Your task to perform on an android device: open app "Facebook" (install if not already installed) and enter user name: "resultants@gmail.com" and password: "earned" Image 0: 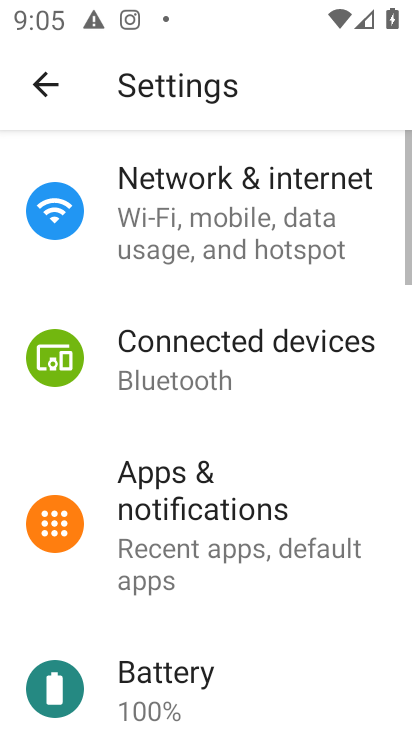
Step 0: press home button
Your task to perform on an android device: open app "Facebook" (install if not already installed) and enter user name: "resultants@gmail.com" and password: "earned" Image 1: 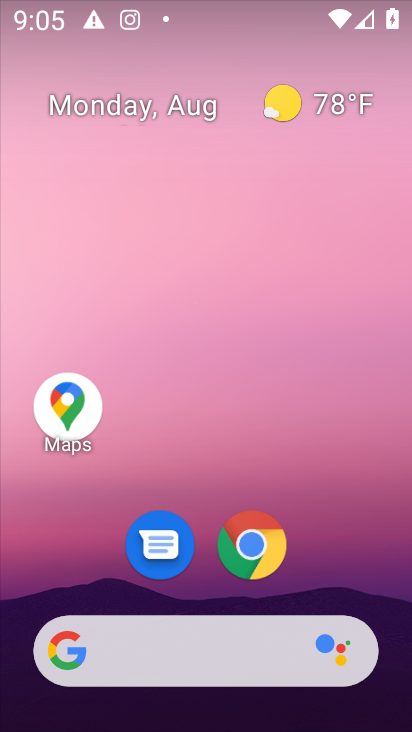
Step 1: drag from (349, 553) to (341, 83)
Your task to perform on an android device: open app "Facebook" (install if not already installed) and enter user name: "resultants@gmail.com" and password: "earned" Image 2: 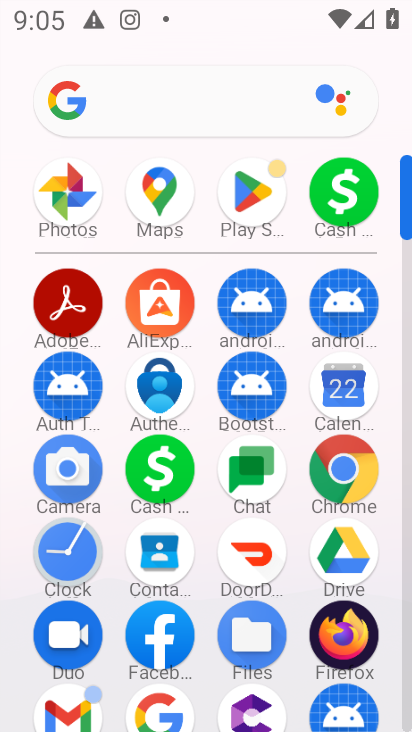
Step 2: click (249, 204)
Your task to perform on an android device: open app "Facebook" (install if not already installed) and enter user name: "resultants@gmail.com" and password: "earned" Image 3: 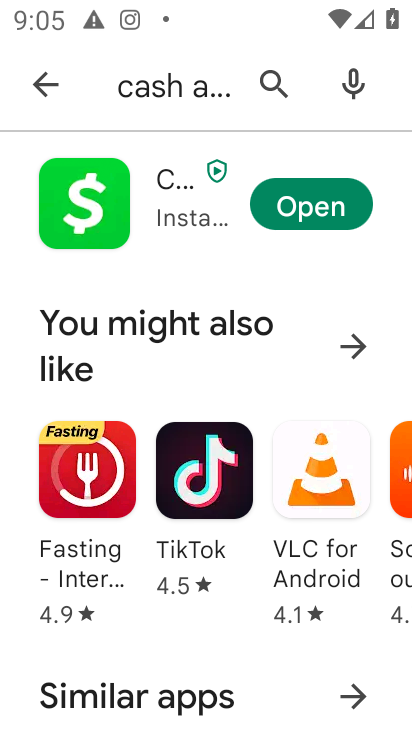
Step 3: press back button
Your task to perform on an android device: open app "Facebook" (install if not already installed) and enter user name: "resultants@gmail.com" and password: "earned" Image 4: 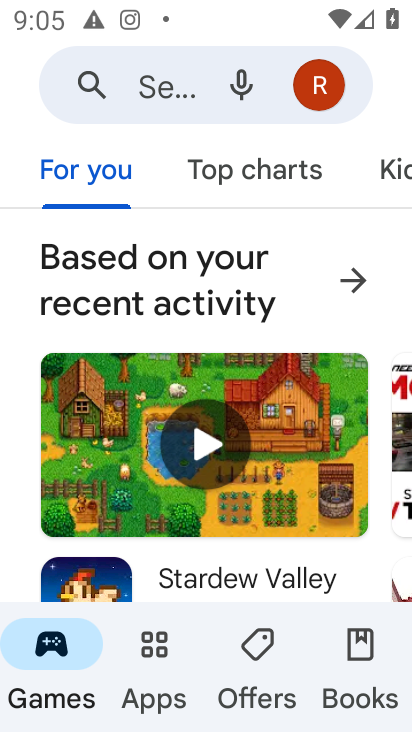
Step 4: click (170, 88)
Your task to perform on an android device: open app "Facebook" (install if not already installed) and enter user name: "resultants@gmail.com" and password: "earned" Image 5: 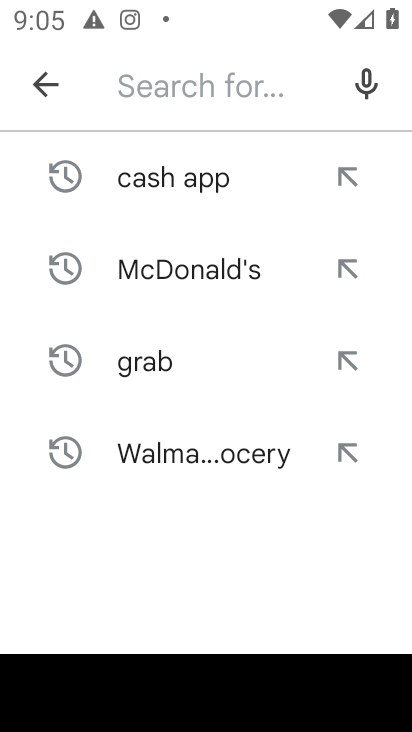
Step 5: type "facebook"
Your task to perform on an android device: open app "Facebook" (install if not already installed) and enter user name: "resultants@gmail.com" and password: "earned" Image 6: 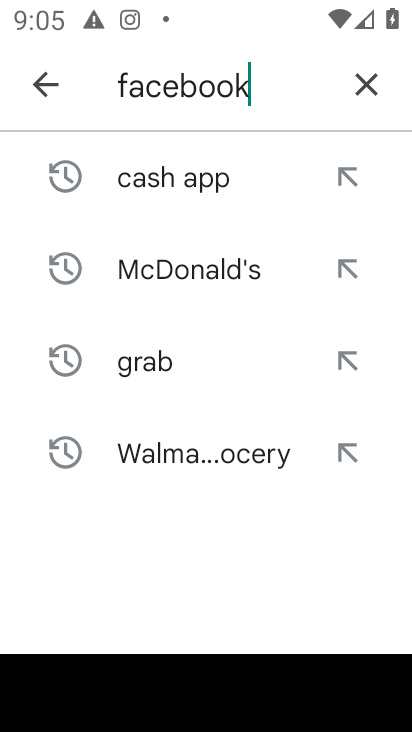
Step 6: press enter
Your task to perform on an android device: open app "Facebook" (install if not already installed) and enter user name: "resultants@gmail.com" and password: "earned" Image 7: 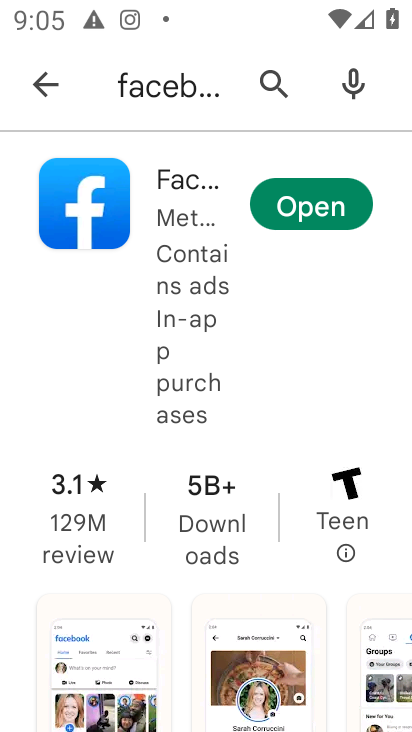
Step 7: click (308, 208)
Your task to perform on an android device: open app "Facebook" (install if not already installed) and enter user name: "resultants@gmail.com" and password: "earned" Image 8: 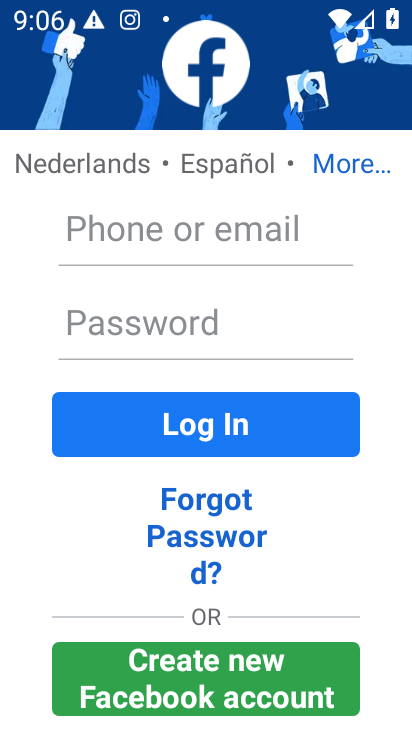
Step 8: click (241, 245)
Your task to perform on an android device: open app "Facebook" (install if not already installed) and enter user name: "resultants@gmail.com" and password: "earned" Image 9: 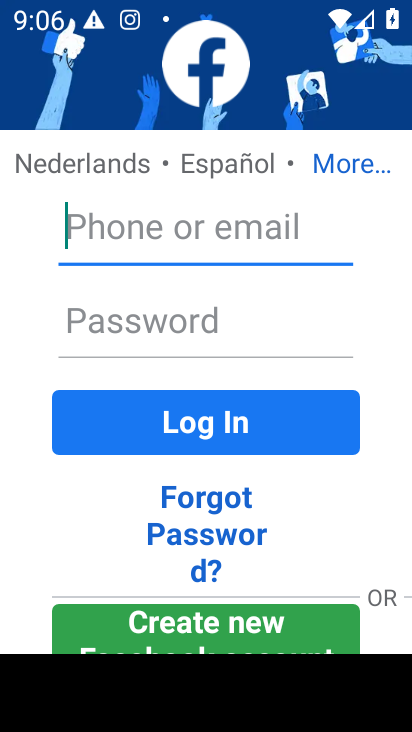
Step 9: press enter
Your task to perform on an android device: open app "Facebook" (install if not already installed) and enter user name: "resultants@gmail.com" and password: "earned" Image 10: 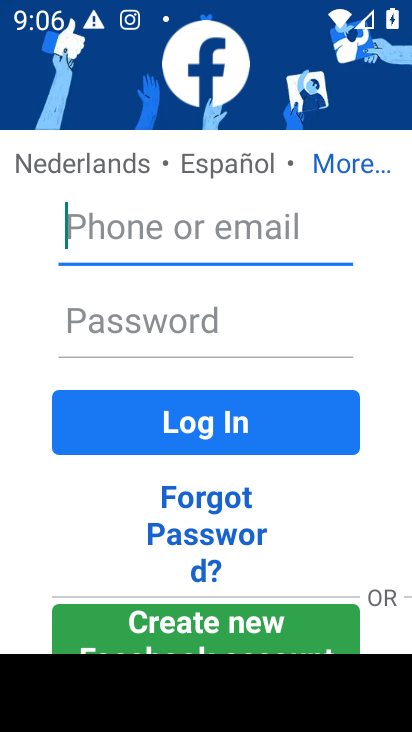
Step 10: type "resultants@gmail.com"
Your task to perform on an android device: open app "Facebook" (install if not already installed) and enter user name: "resultants@gmail.com" and password: "earned" Image 11: 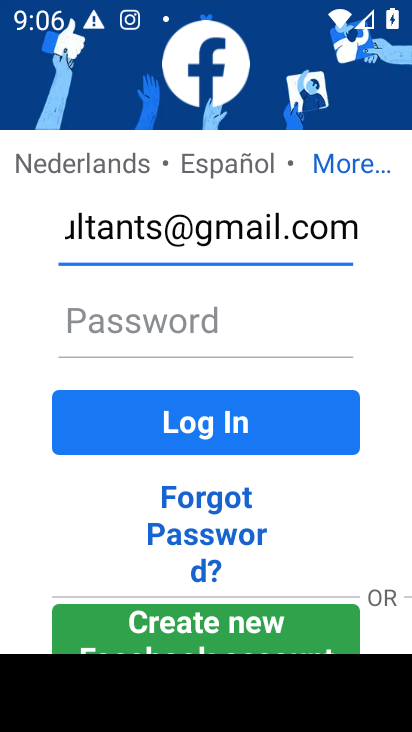
Step 11: click (153, 338)
Your task to perform on an android device: open app "Facebook" (install if not already installed) and enter user name: "resultants@gmail.com" and password: "earned" Image 12: 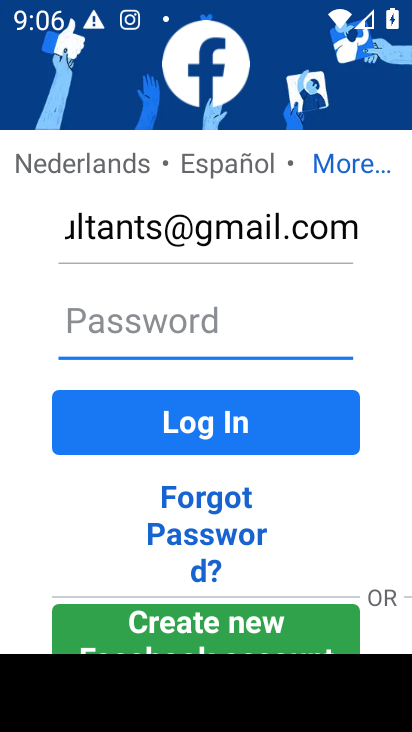
Step 12: press enter
Your task to perform on an android device: open app "Facebook" (install if not already installed) and enter user name: "resultants@gmail.com" and password: "earned" Image 13: 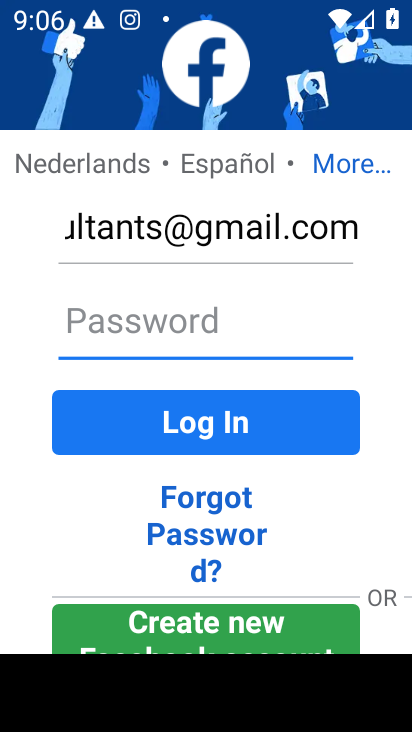
Step 13: type "earned"
Your task to perform on an android device: open app "Facebook" (install if not already installed) and enter user name: "resultants@gmail.com" and password: "earned" Image 14: 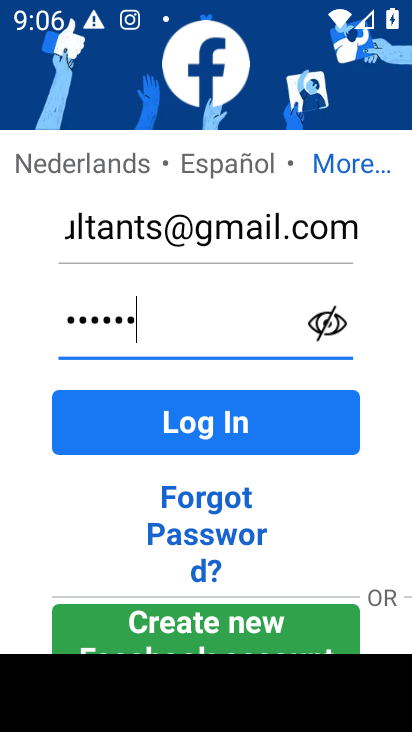
Step 14: task complete